Your task to perform on an android device: turn on data saver in the chrome app Image 0: 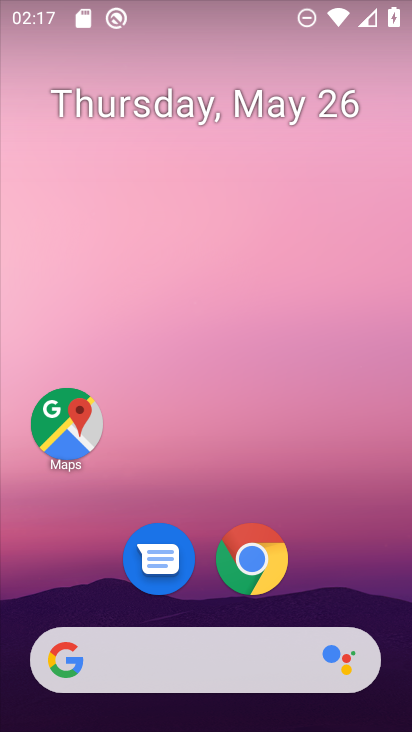
Step 0: drag from (214, 502) to (303, 171)
Your task to perform on an android device: turn on data saver in the chrome app Image 1: 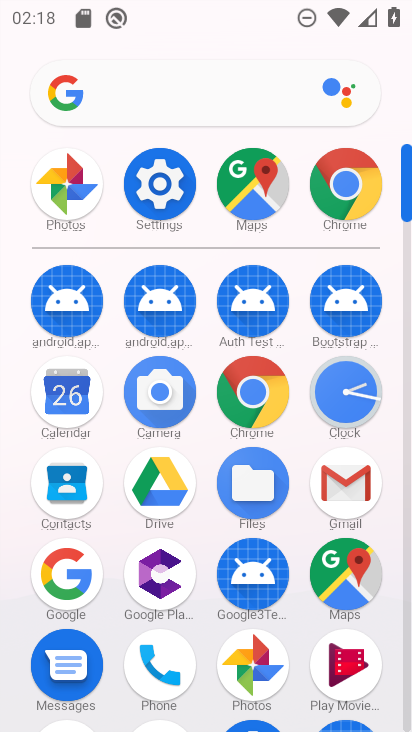
Step 1: click (345, 196)
Your task to perform on an android device: turn on data saver in the chrome app Image 2: 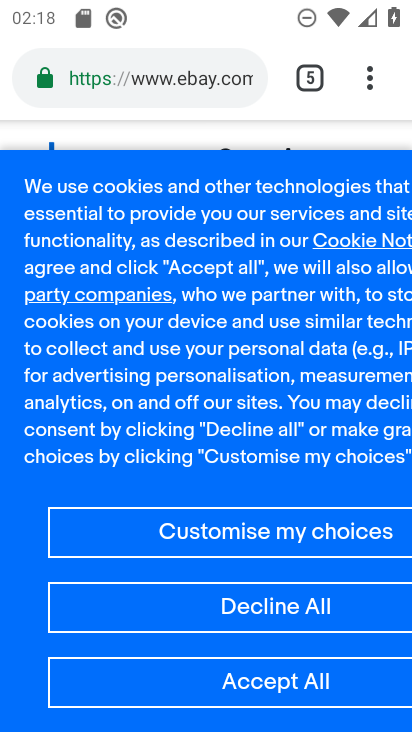
Step 2: drag from (364, 78) to (158, 599)
Your task to perform on an android device: turn on data saver in the chrome app Image 3: 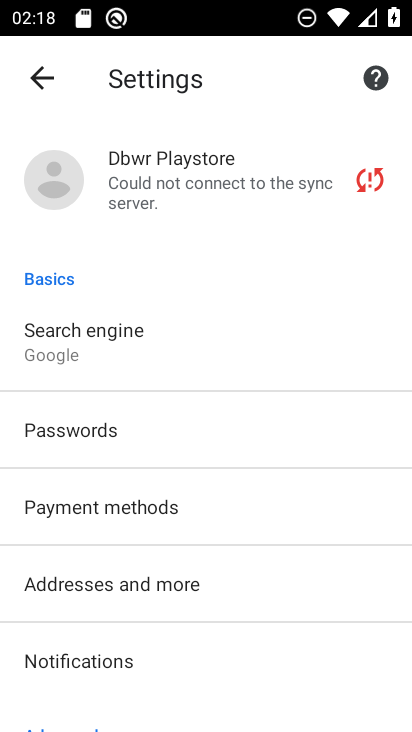
Step 3: drag from (110, 681) to (265, 249)
Your task to perform on an android device: turn on data saver in the chrome app Image 4: 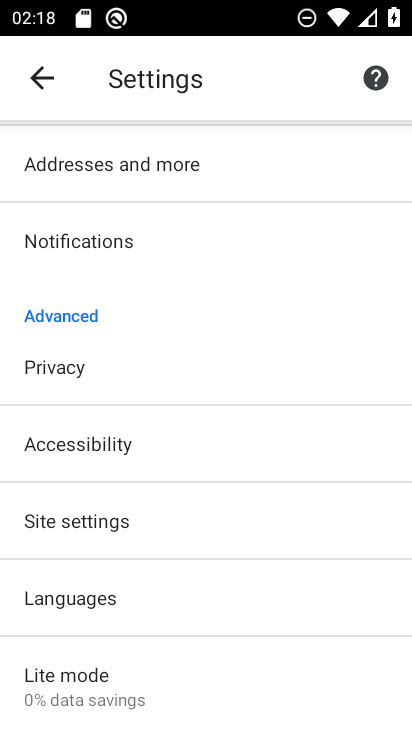
Step 4: click (100, 678)
Your task to perform on an android device: turn on data saver in the chrome app Image 5: 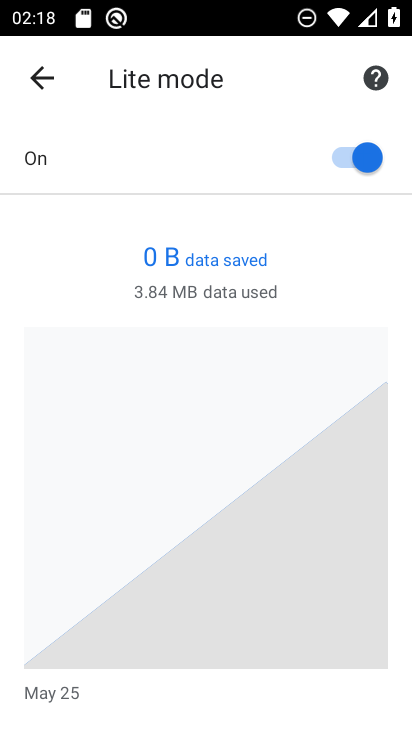
Step 5: task complete